Your task to perform on an android device: turn off priority inbox in the gmail app Image 0: 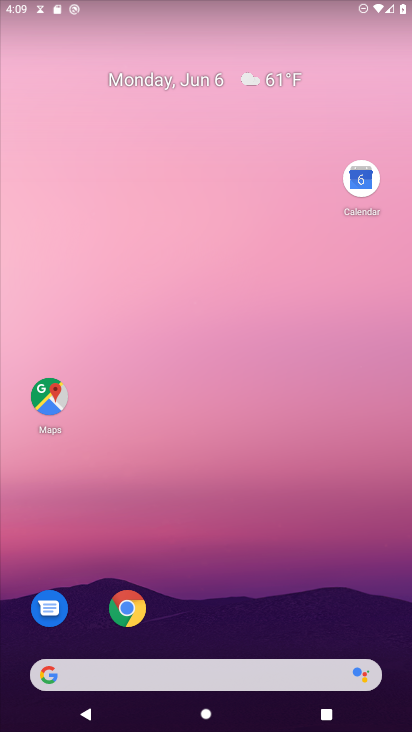
Step 0: drag from (268, 381) to (274, 64)
Your task to perform on an android device: turn off priority inbox in the gmail app Image 1: 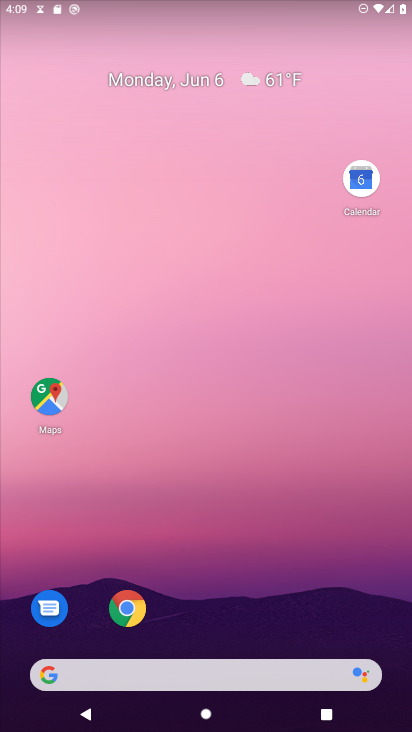
Step 1: drag from (248, 589) to (340, 7)
Your task to perform on an android device: turn off priority inbox in the gmail app Image 2: 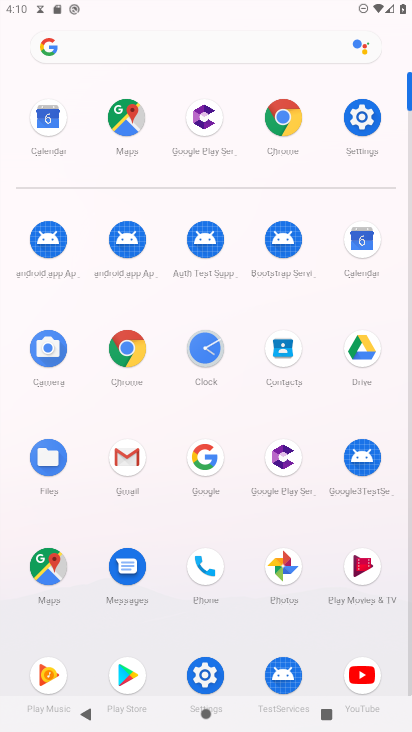
Step 2: click (116, 462)
Your task to perform on an android device: turn off priority inbox in the gmail app Image 3: 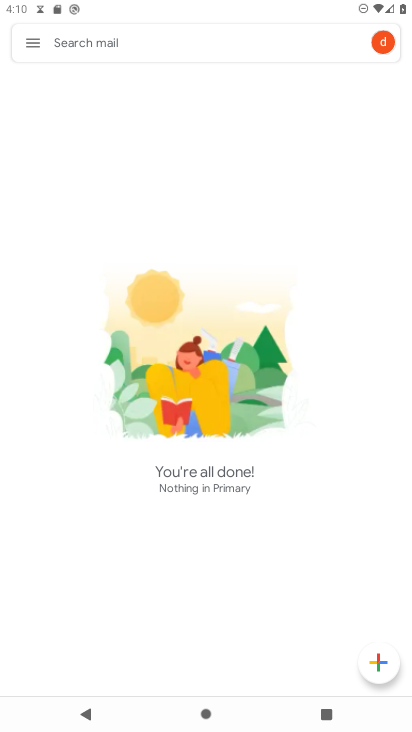
Step 3: click (34, 44)
Your task to perform on an android device: turn off priority inbox in the gmail app Image 4: 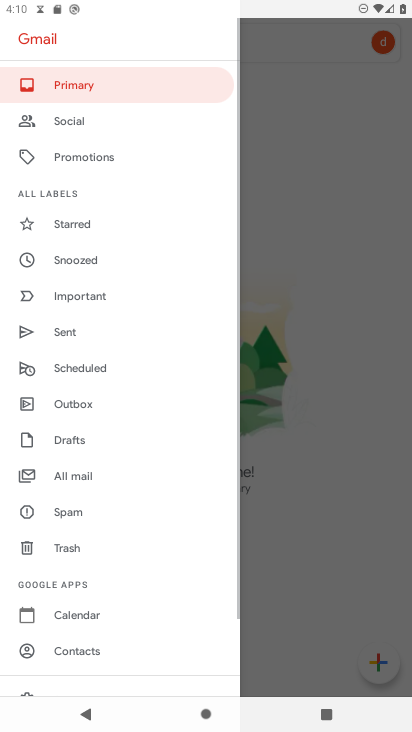
Step 4: drag from (116, 604) to (155, 183)
Your task to perform on an android device: turn off priority inbox in the gmail app Image 5: 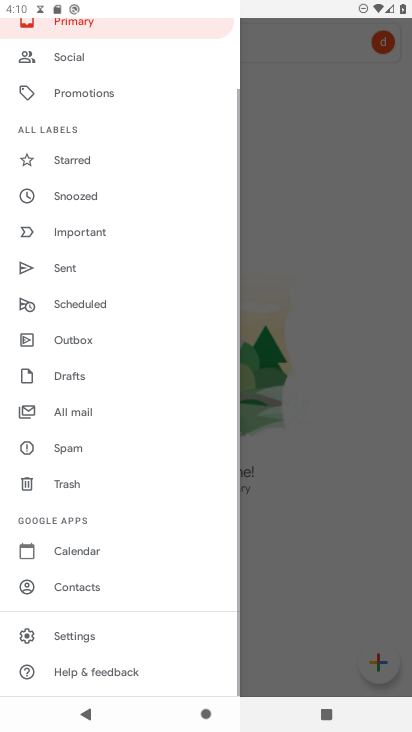
Step 5: click (101, 627)
Your task to perform on an android device: turn off priority inbox in the gmail app Image 6: 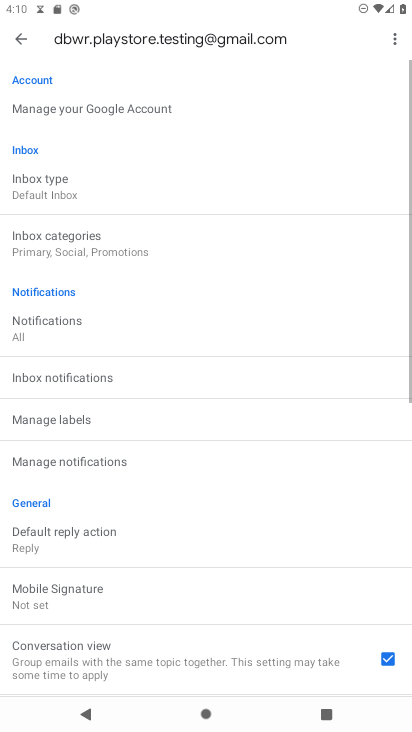
Step 6: drag from (280, 605) to (281, 219)
Your task to perform on an android device: turn off priority inbox in the gmail app Image 7: 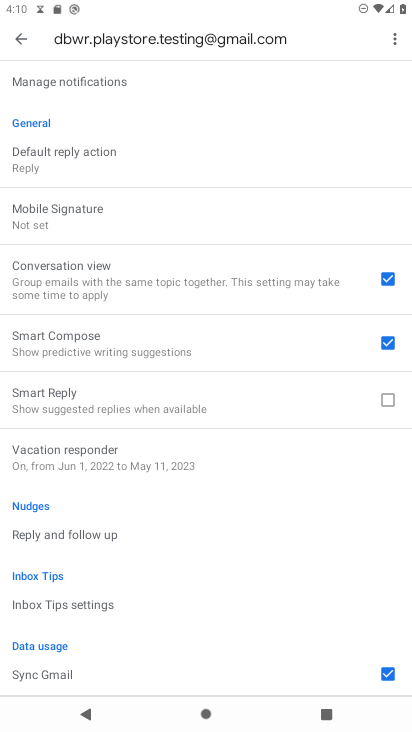
Step 7: drag from (147, 155) to (156, 677)
Your task to perform on an android device: turn off priority inbox in the gmail app Image 8: 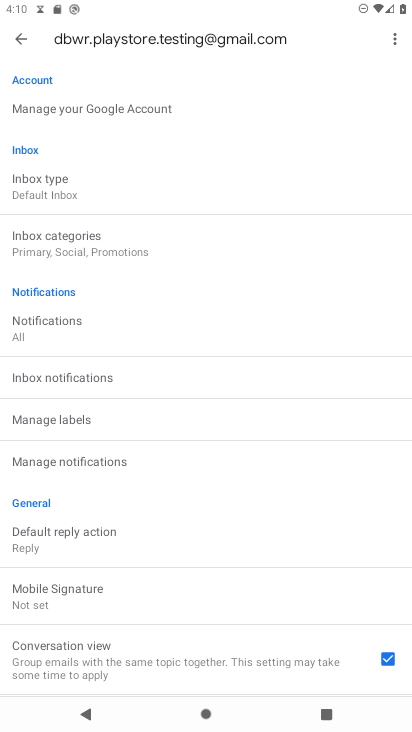
Step 8: click (49, 192)
Your task to perform on an android device: turn off priority inbox in the gmail app Image 9: 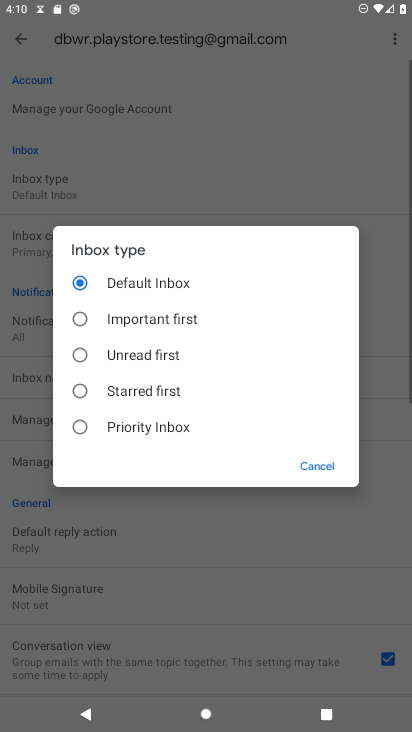
Step 9: click (127, 279)
Your task to perform on an android device: turn off priority inbox in the gmail app Image 10: 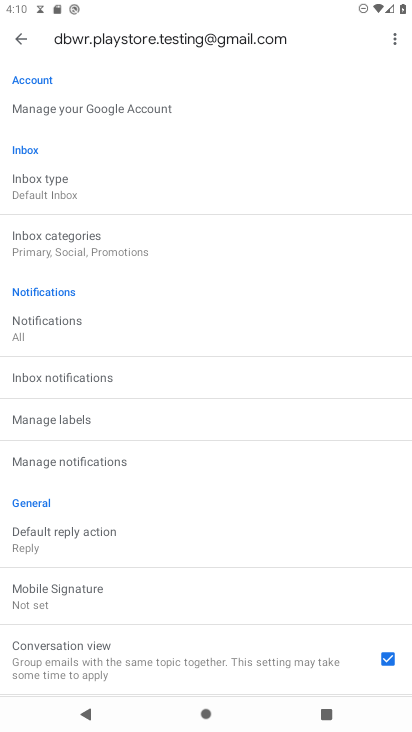
Step 10: task complete